Your task to perform on an android device: What's the weather going to be tomorrow? Image 0: 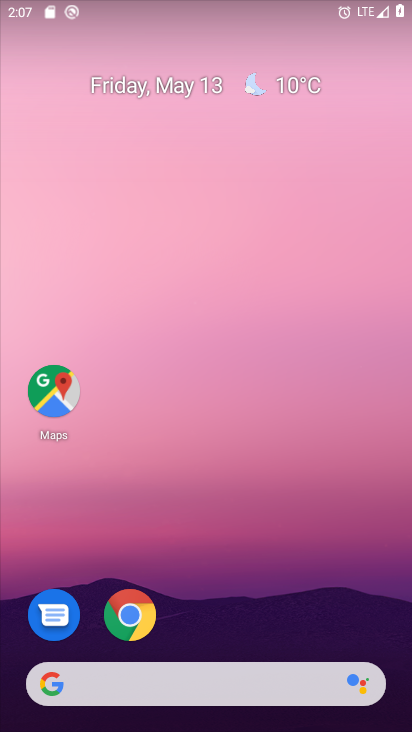
Step 0: click (284, 86)
Your task to perform on an android device: What's the weather going to be tomorrow? Image 1: 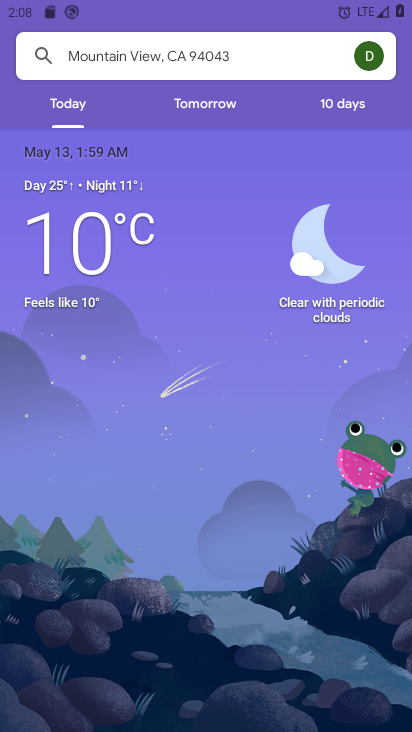
Step 1: click (207, 108)
Your task to perform on an android device: What's the weather going to be tomorrow? Image 2: 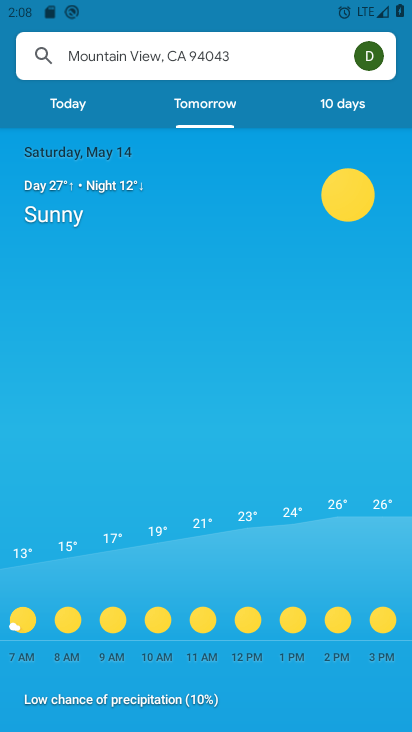
Step 2: task complete